Your task to perform on an android device: open app "Facebook" (install if not already installed) Image 0: 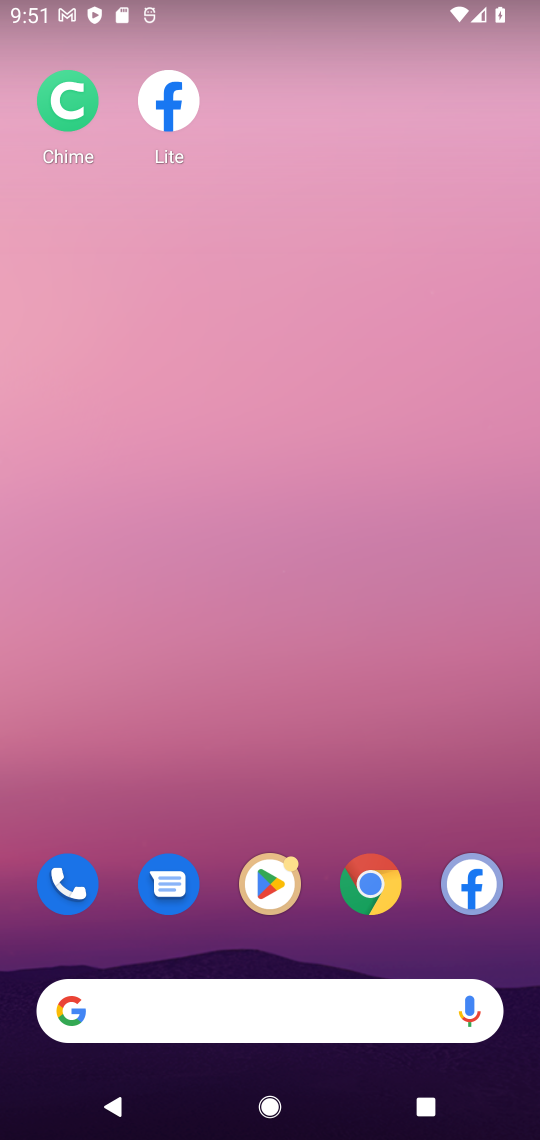
Step 0: click (269, 906)
Your task to perform on an android device: open app "Facebook" (install if not already installed) Image 1: 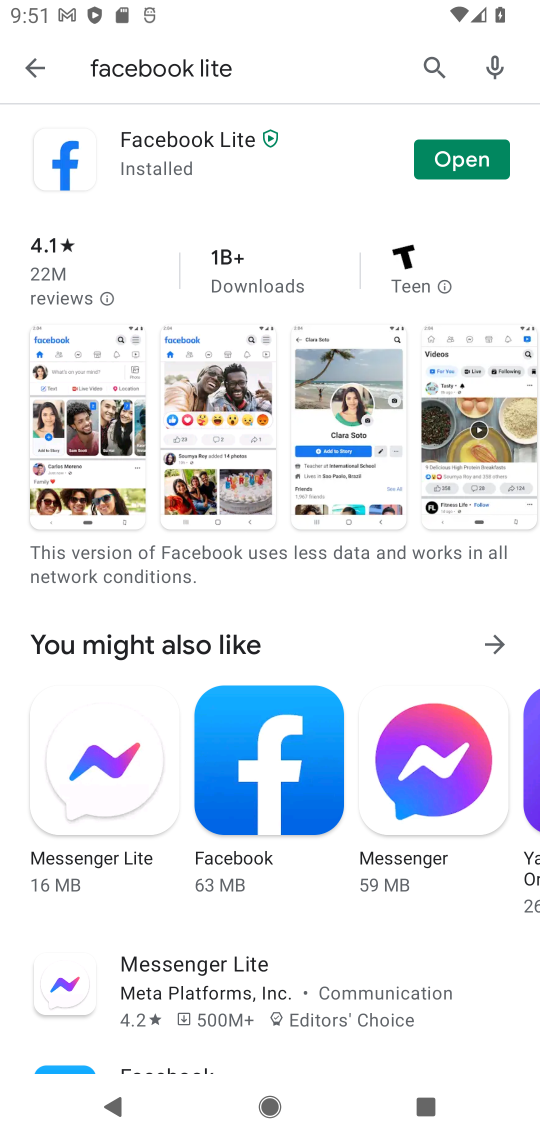
Step 1: click (423, 75)
Your task to perform on an android device: open app "Facebook" (install if not already installed) Image 2: 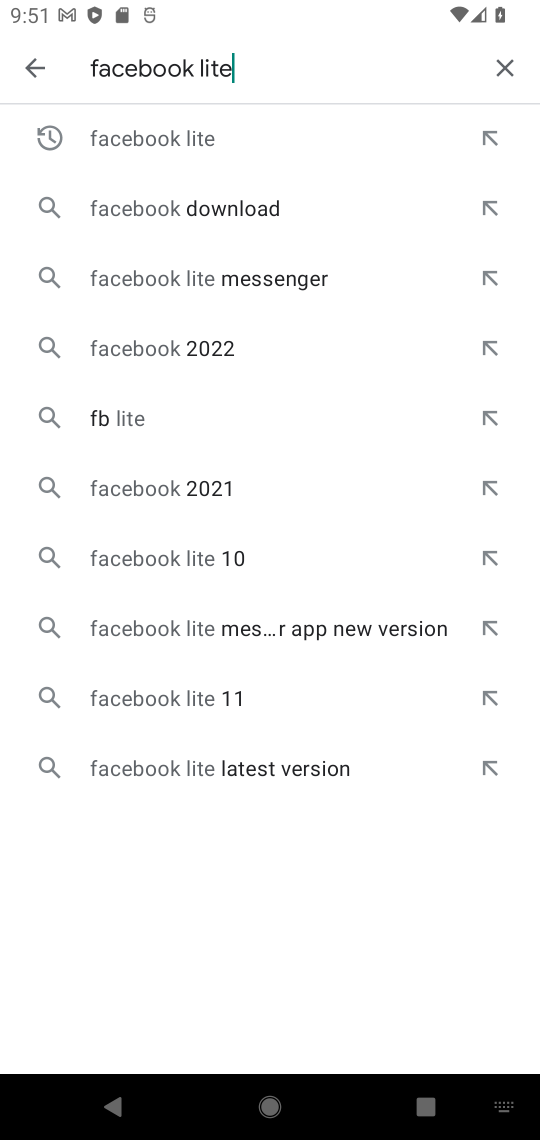
Step 2: click (490, 75)
Your task to perform on an android device: open app "Facebook" (install if not already installed) Image 3: 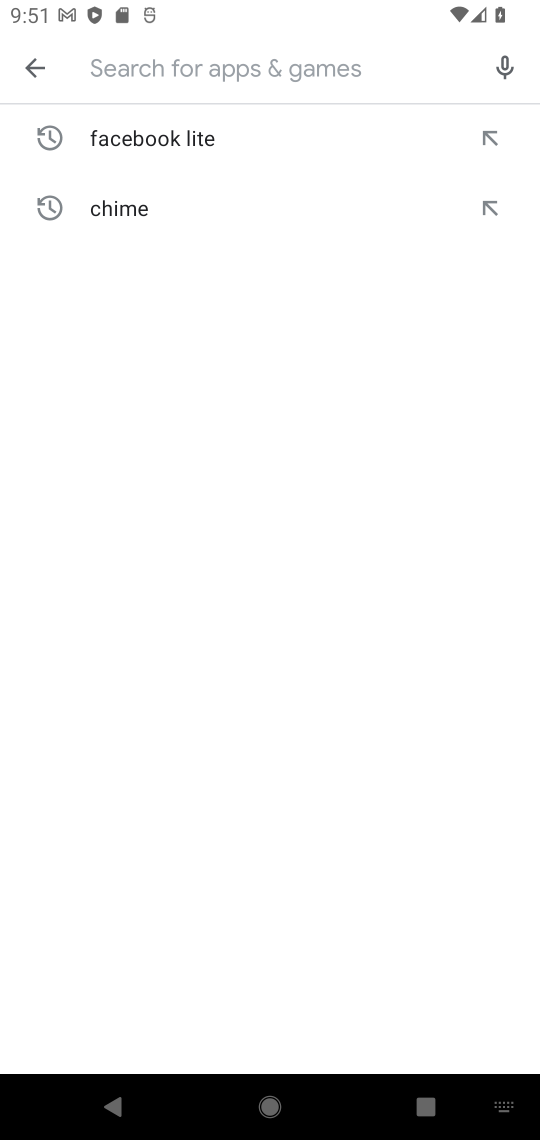
Step 3: type "facebook"
Your task to perform on an android device: open app "Facebook" (install if not already installed) Image 4: 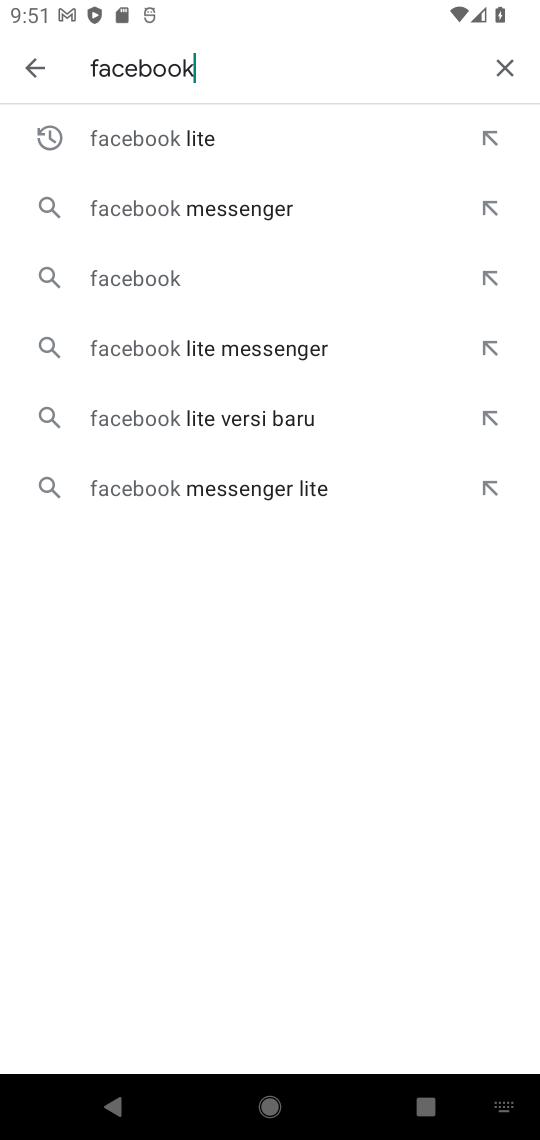
Step 4: click (209, 271)
Your task to perform on an android device: open app "Facebook" (install if not already installed) Image 5: 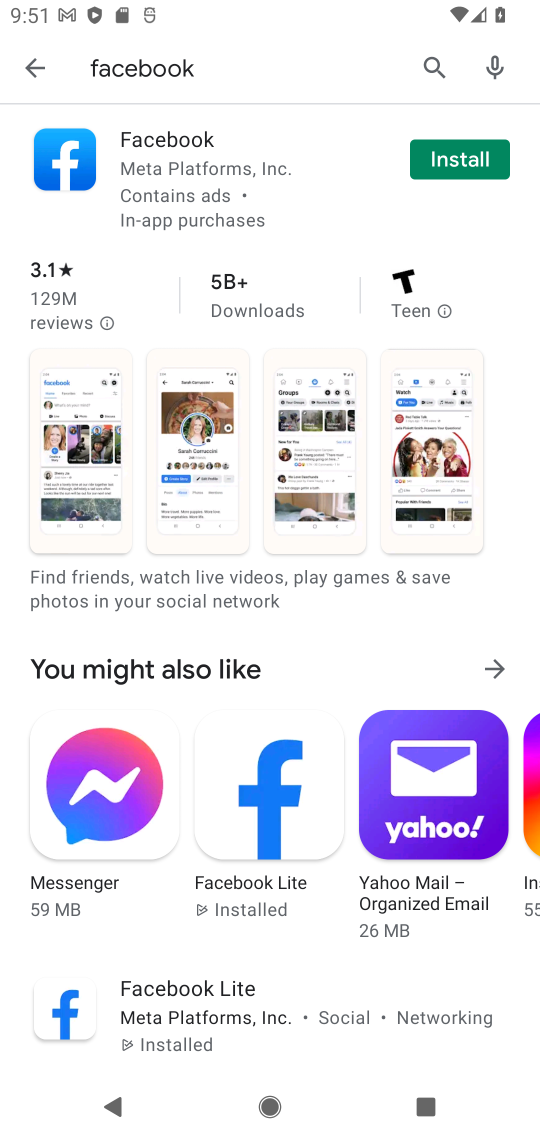
Step 5: click (439, 164)
Your task to perform on an android device: open app "Facebook" (install if not already installed) Image 6: 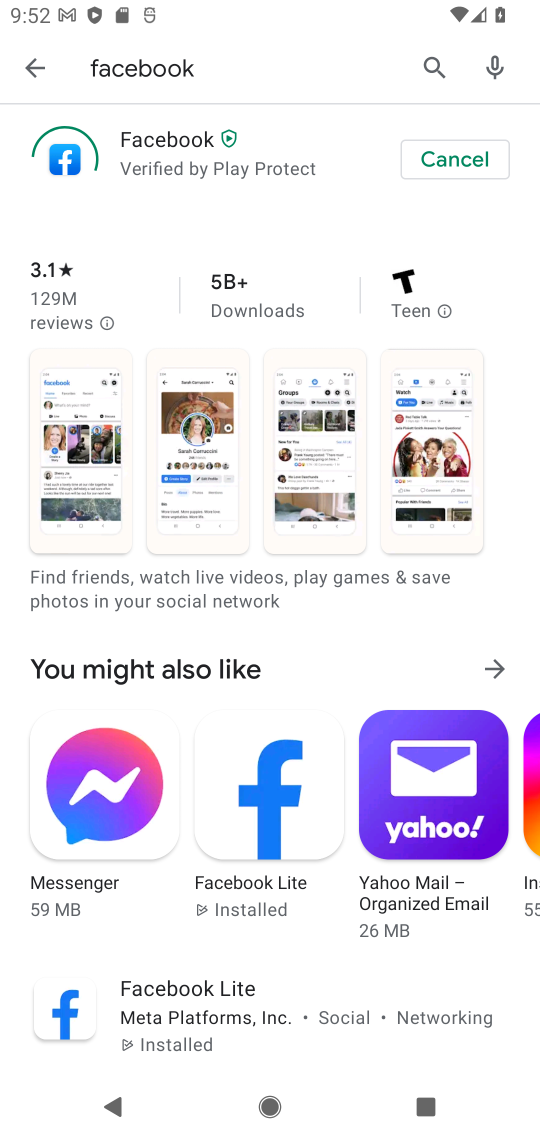
Step 6: task complete